Your task to perform on an android device: turn vacation reply on in the gmail app Image 0: 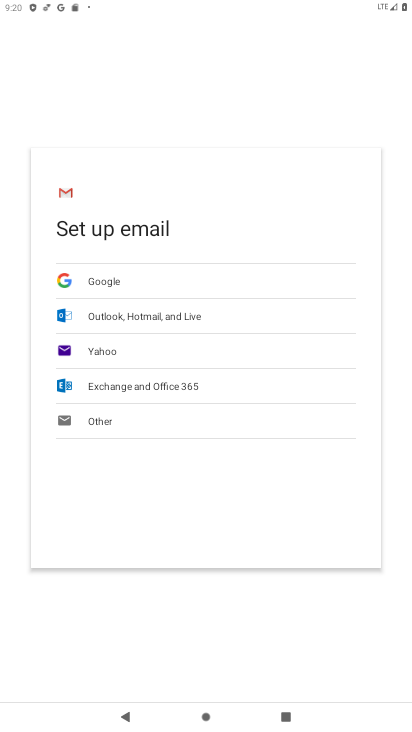
Step 0: press home button
Your task to perform on an android device: turn vacation reply on in the gmail app Image 1: 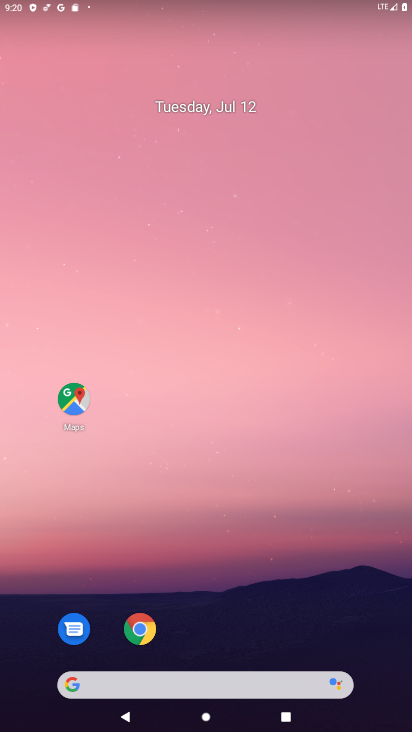
Step 1: drag from (239, 620) to (196, 239)
Your task to perform on an android device: turn vacation reply on in the gmail app Image 2: 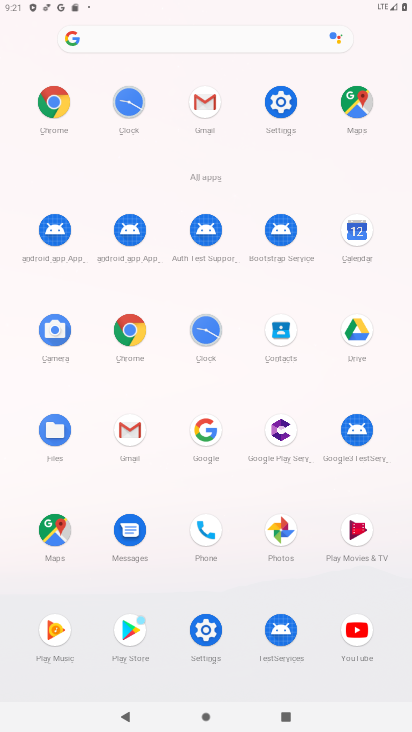
Step 2: click (201, 116)
Your task to perform on an android device: turn vacation reply on in the gmail app Image 3: 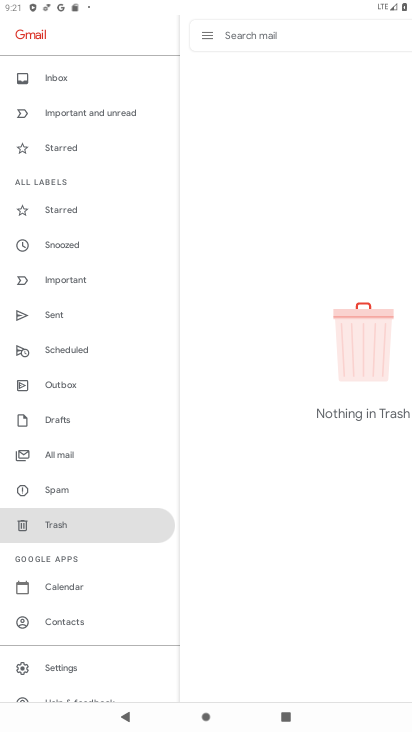
Step 3: click (90, 666)
Your task to perform on an android device: turn vacation reply on in the gmail app Image 4: 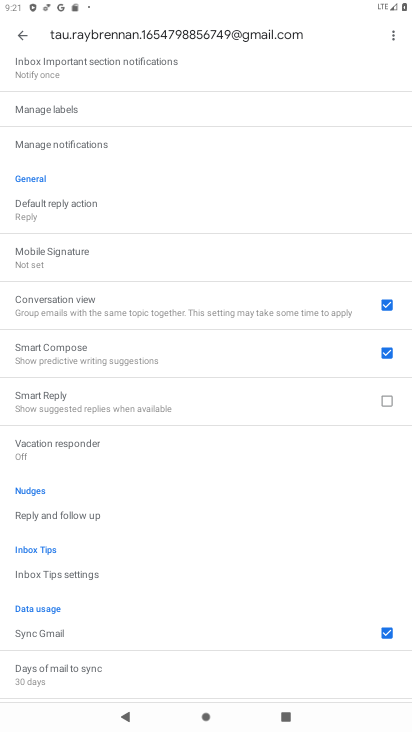
Step 4: click (209, 451)
Your task to perform on an android device: turn vacation reply on in the gmail app Image 5: 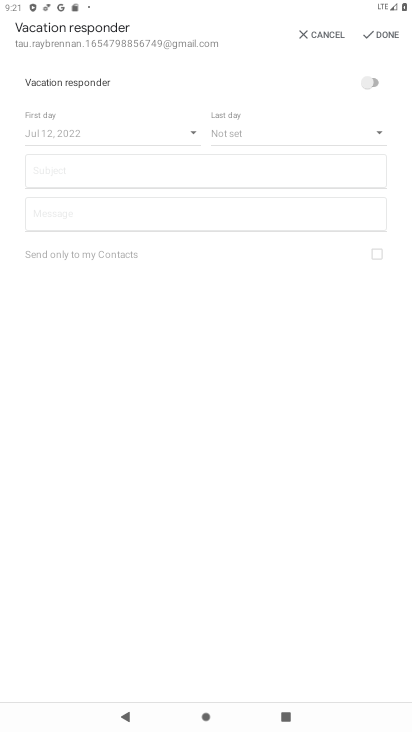
Step 5: click (376, 83)
Your task to perform on an android device: turn vacation reply on in the gmail app Image 6: 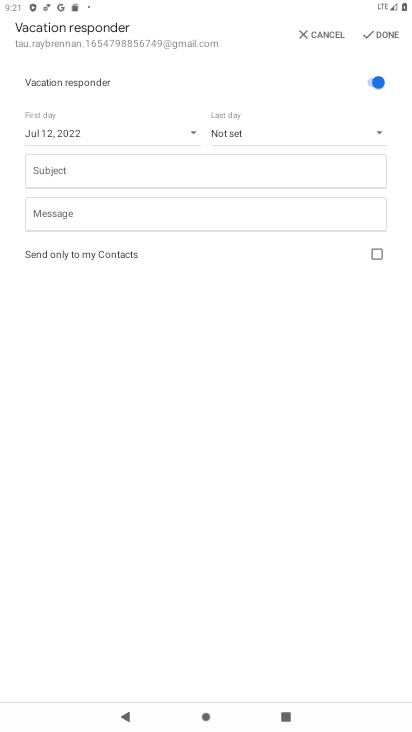
Step 6: click (332, 165)
Your task to perform on an android device: turn vacation reply on in the gmail app Image 7: 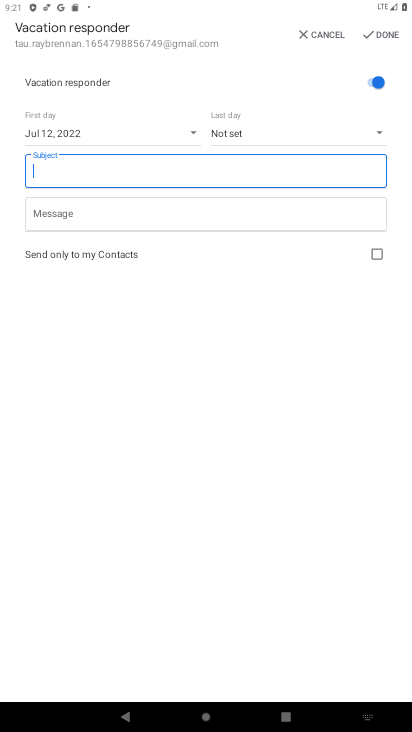
Step 7: type "bhkbk"
Your task to perform on an android device: turn vacation reply on in the gmail app Image 8: 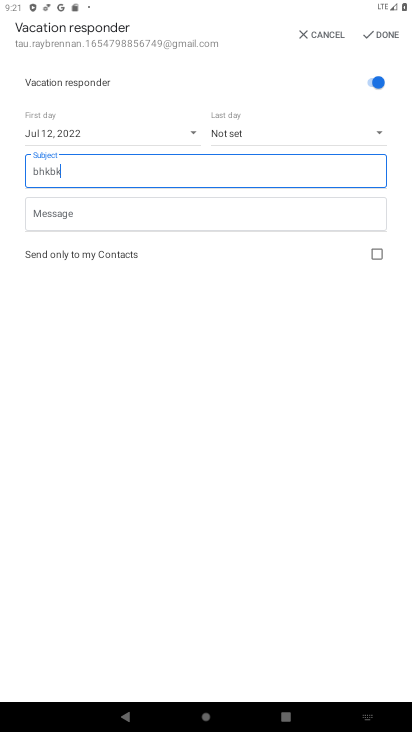
Step 8: click (387, 39)
Your task to perform on an android device: turn vacation reply on in the gmail app Image 9: 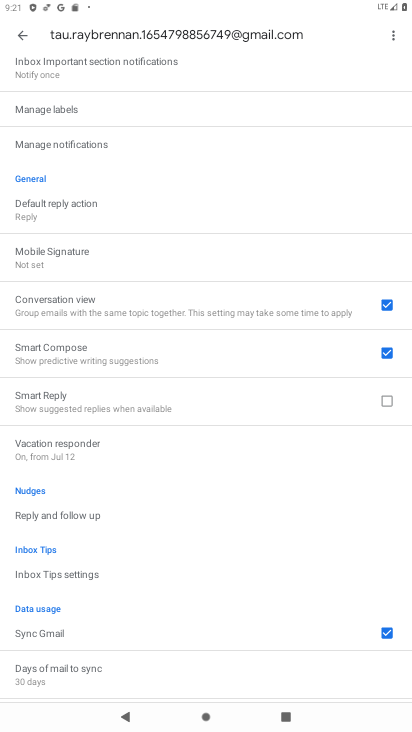
Step 9: task complete